Your task to perform on an android device: turn off sleep mode Image 0: 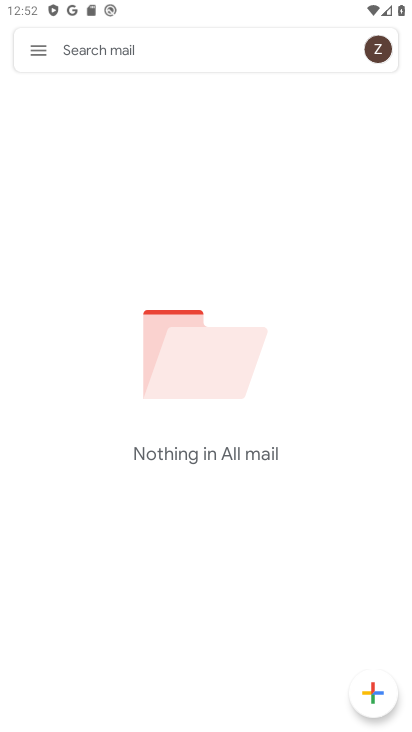
Step 0: press home button
Your task to perform on an android device: turn off sleep mode Image 1: 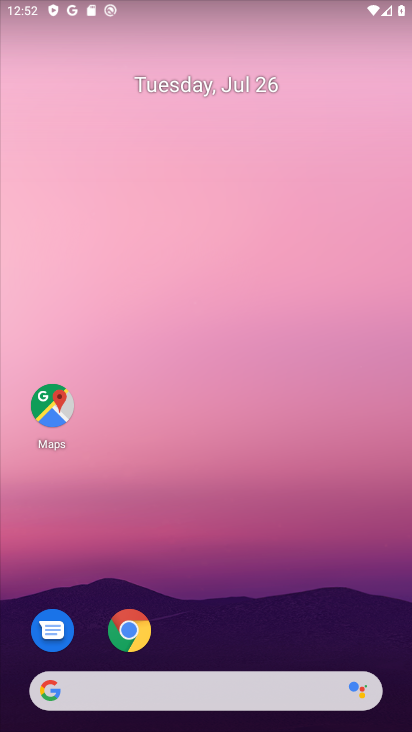
Step 1: drag from (248, 642) to (336, 10)
Your task to perform on an android device: turn off sleep mode Image 2: 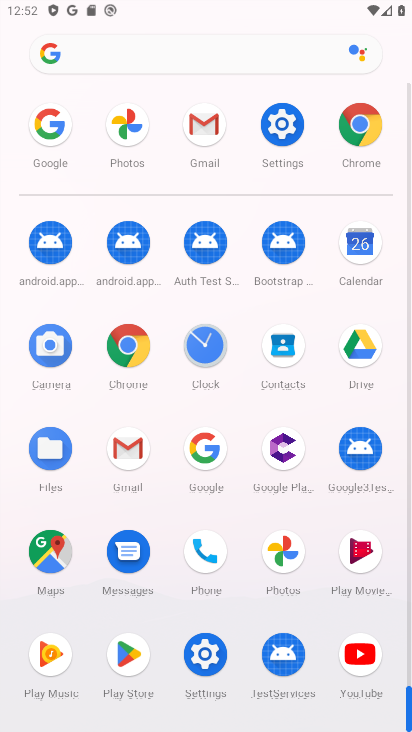
Step 2: click (288, 130)
Your task to perform on an android device: turn off sleep mode Image 3: 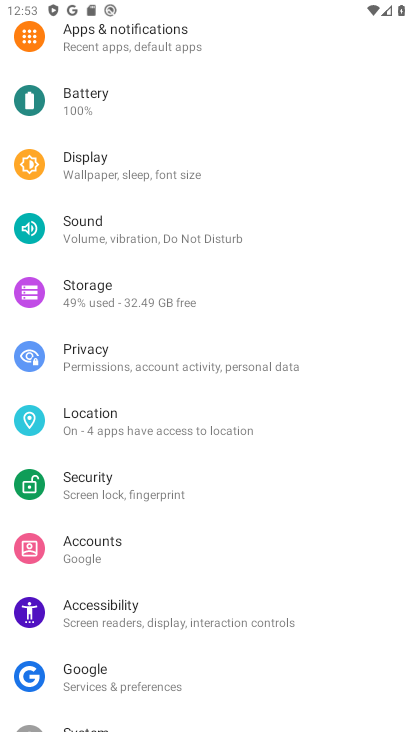
Step 3: click (126, 175)
Your task to perform on an android device: turn off sleep mode Image 4: 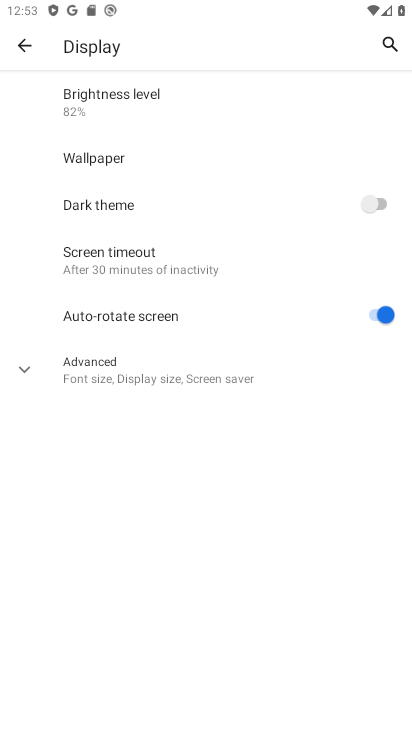
Step 4: click (142, 273)
Your task to perform on an android device: turn off sleep mode Image 5: 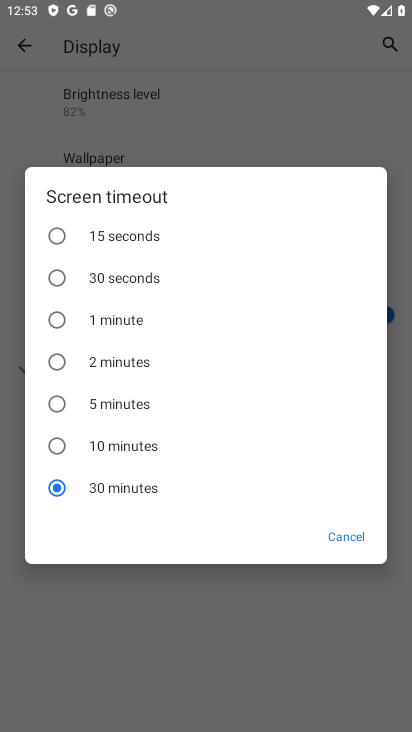
Step 5: task complete